Your task to perform on an android device: open app "Microsoft Excel" Image 0: 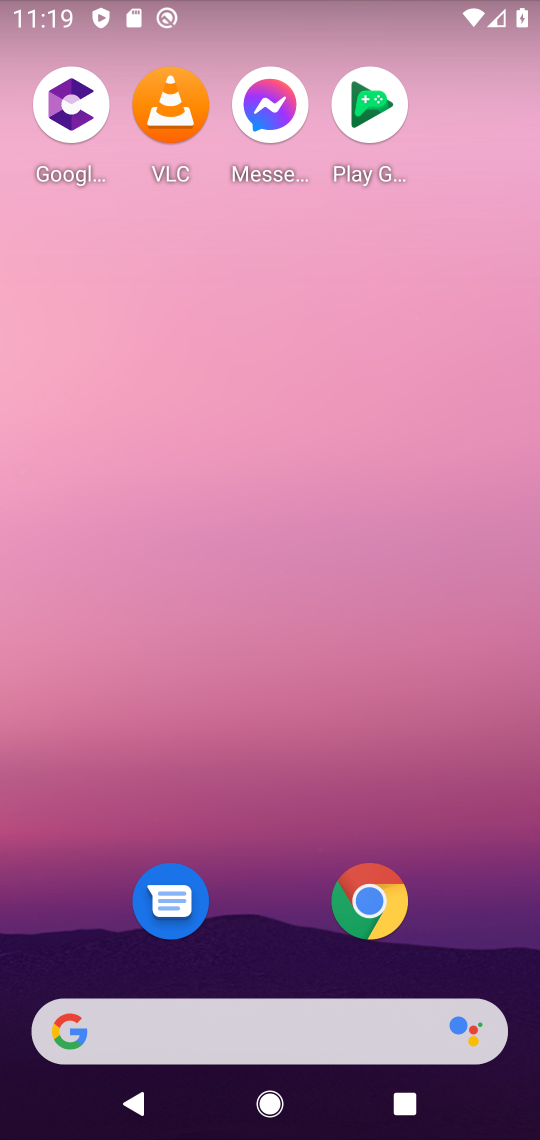
Step 0: drag from (287, 977) to (281, 195)
Your task to perform on an android device: open app "Microsoft Excel" Image 1: 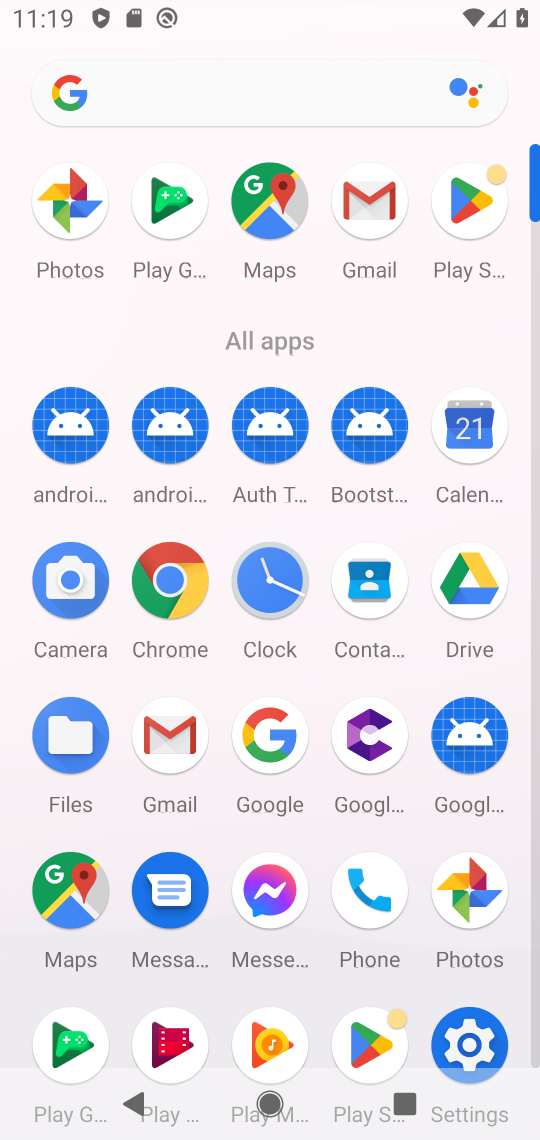
Step 1: click (478, 235)
Your task to perform on an android device: open app "Microsoft Excel" Image 2: 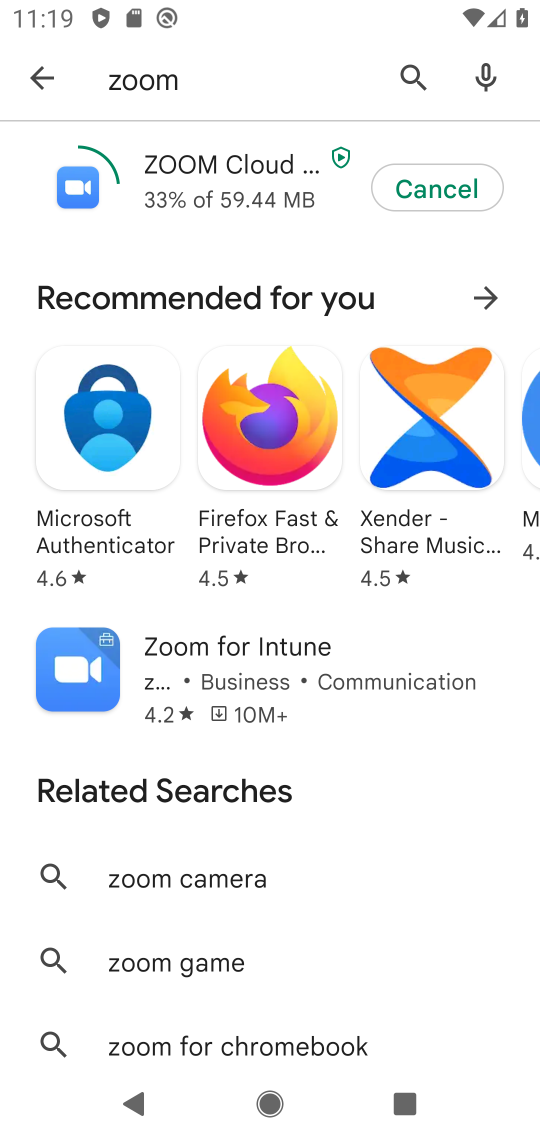
Step 2: click (418, 70)
Your task to perform on an android device: open app "Microsoft Excel" Image 3: 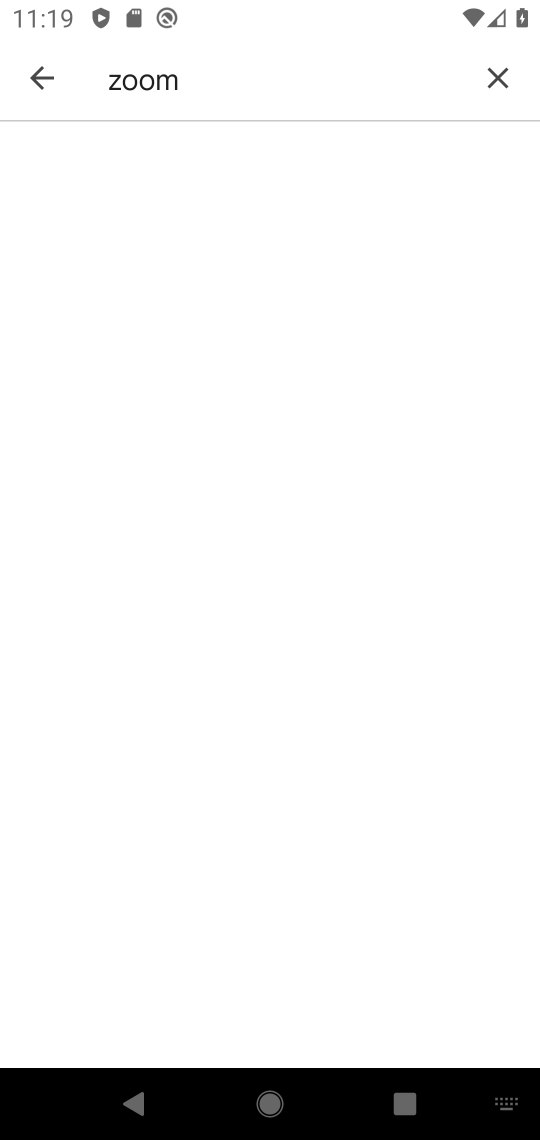
Step 3: click (498, 70)
Your task to perform on an android device: open app "Microsoft Excel" Image 4: 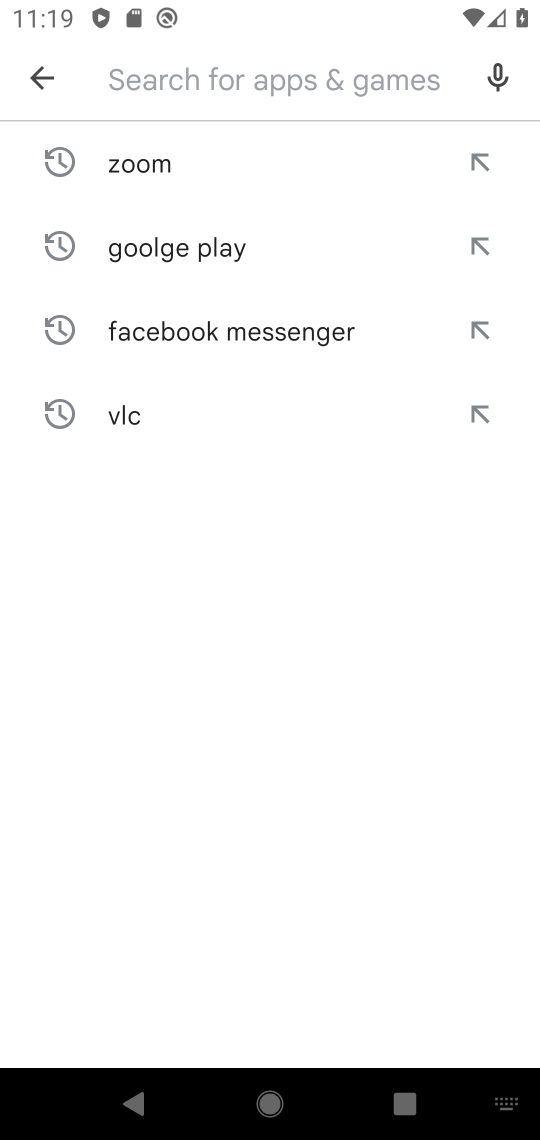
Step 4: type "microsoft"
Your task to perform on an android device: open app "Microsoft Excel" Image 5: 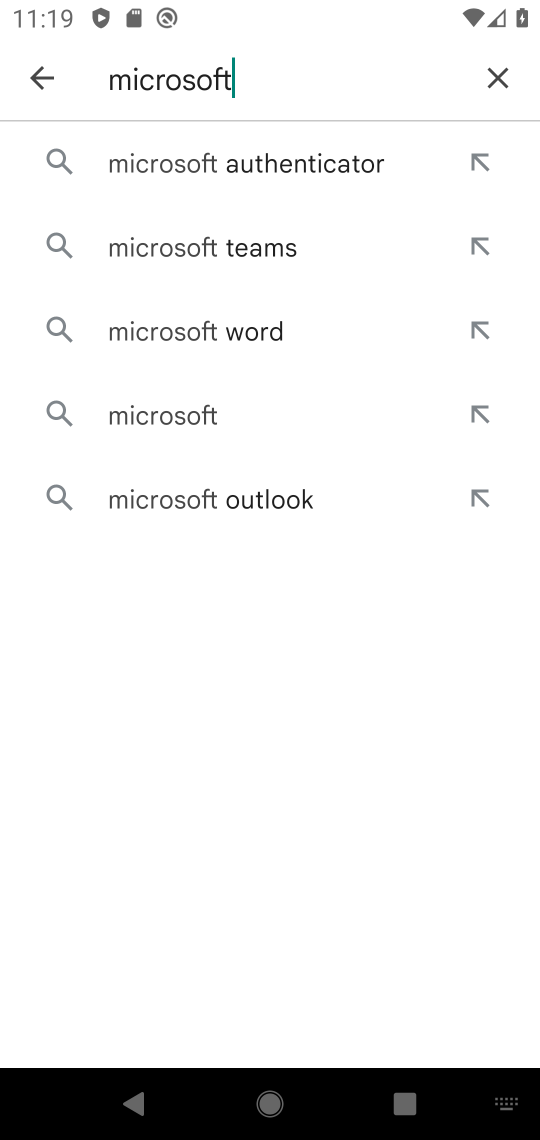
Step 5: click (218, 395)
Your task to perform on an android device: open app "Microsoft Excel" Image 6: 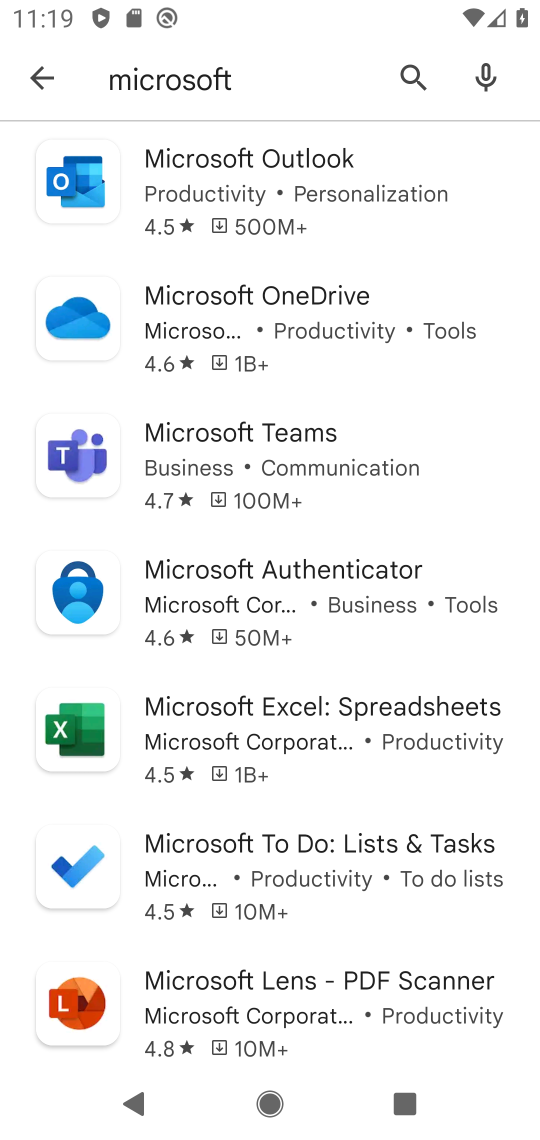
Step 6: click (260, 709)
Your task to perform on an android device: open app "Microsoft Excel" Image 7: 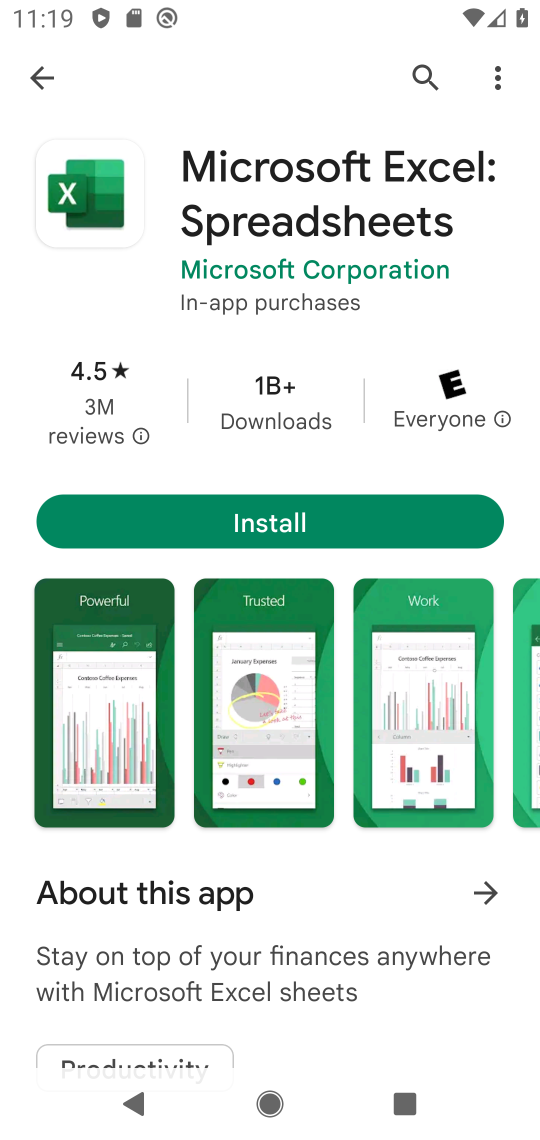
Step 7: click (337, 531)
Your task to perform on an android device: open app "Microsoft Excel" Image 8: 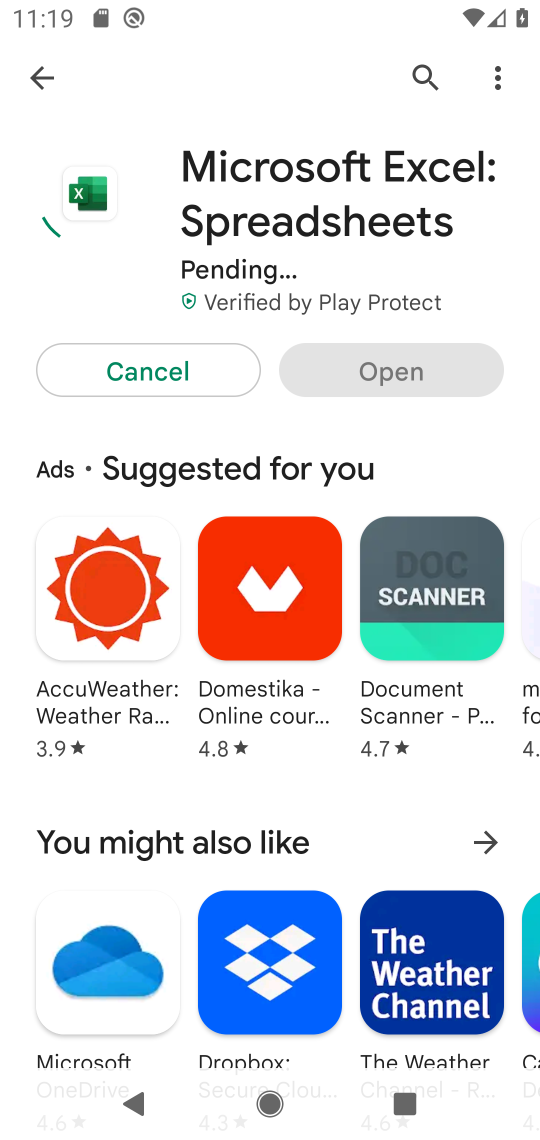
Step 8: task complete